Your task to perform on an android device: open wifi settings Image 0: 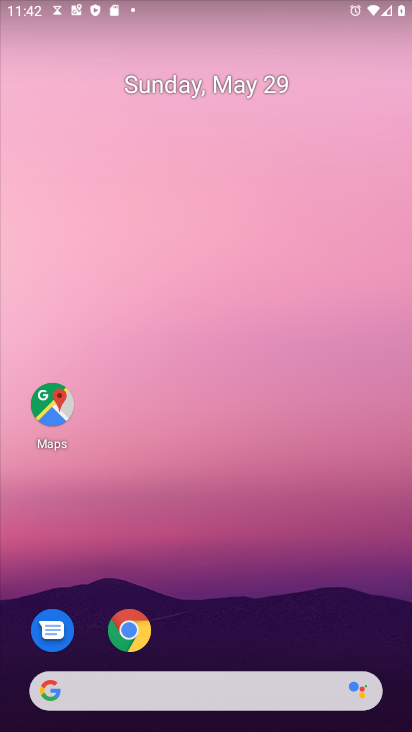
Step 0: drag from (178, 557) to (170, 0)
Your task to perform on an android device: open wifi settings Image 1: 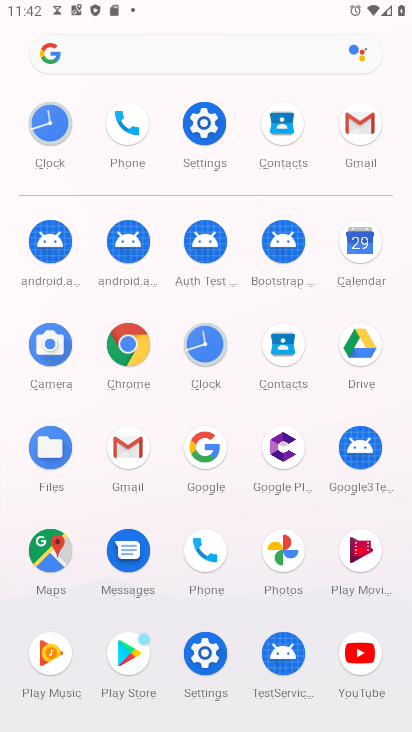
Step 1: click (206, 134)
Your task to perform on an android device: open wifi settings Image 2: 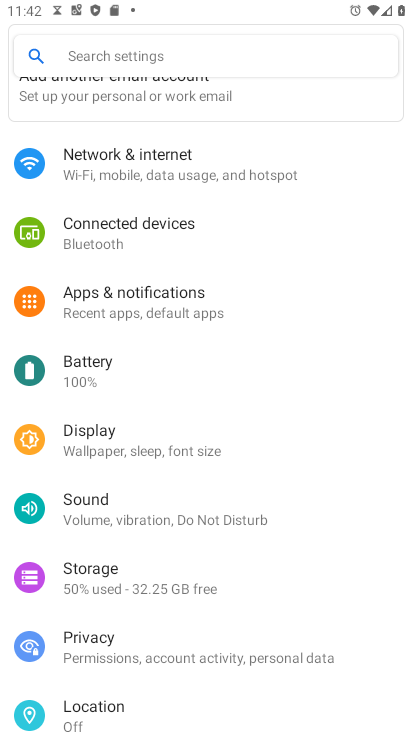
Step 2: click (173, 149)
Your task to perform on an android device: open wifi settings Image 3: 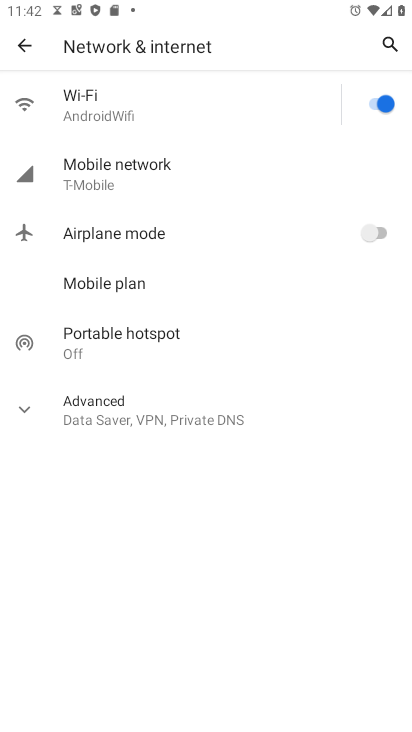
Step 3: click (98, 128)
Your task to perform on an android device: open wifi settings Image 4: 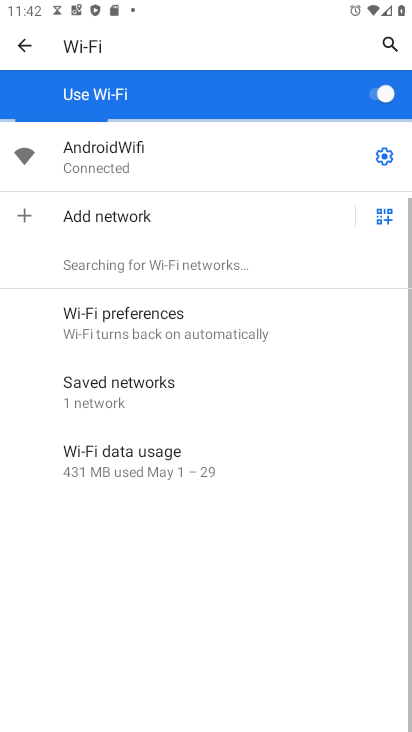
Step 4: task complete